Your task to perform on an android device: visit the assistant section in the google photos Image 0: 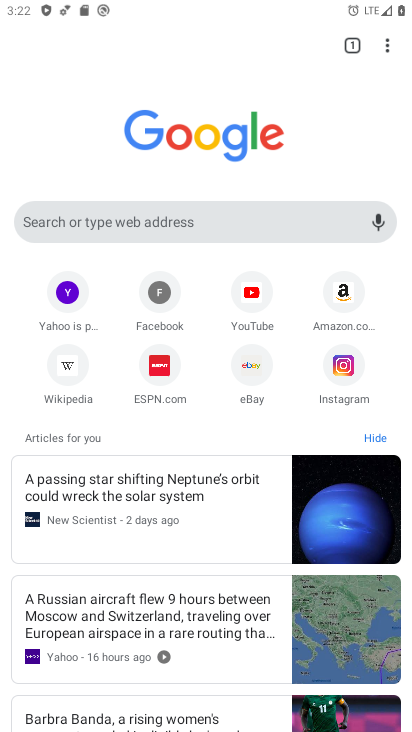
Step 0: task complete